Your task to perform on an android device: delete the emails in spam in the gmail app Image 0: 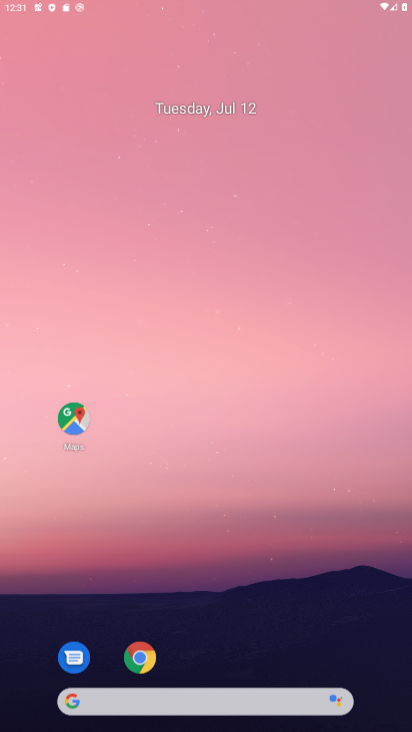
Step 0: click (188, 70)
Your task to perform on an android device: delete the emails in spam in the gmail app Image 1: 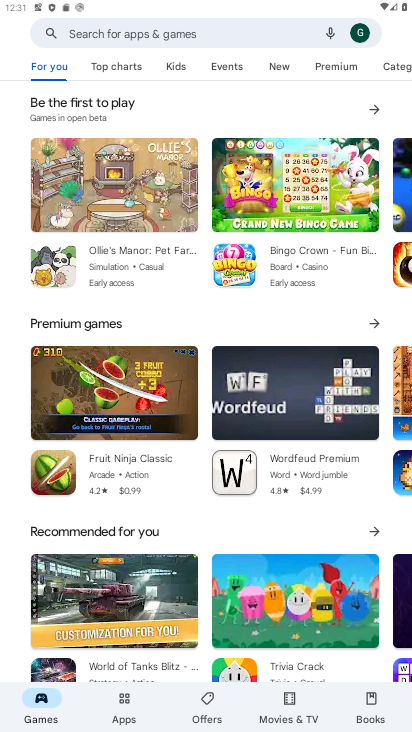
Step 1: press home button
Your task to perform on an android device: delete the emails in spam in the gmail app Image 2: 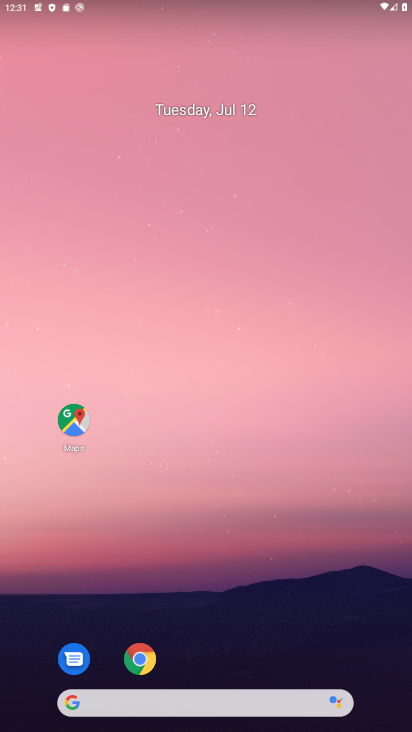
Step 2: drag from (229, 728) to (229, 151)
Your task to perform on an android device: delete the emails in spam in the gmail app Image 3: 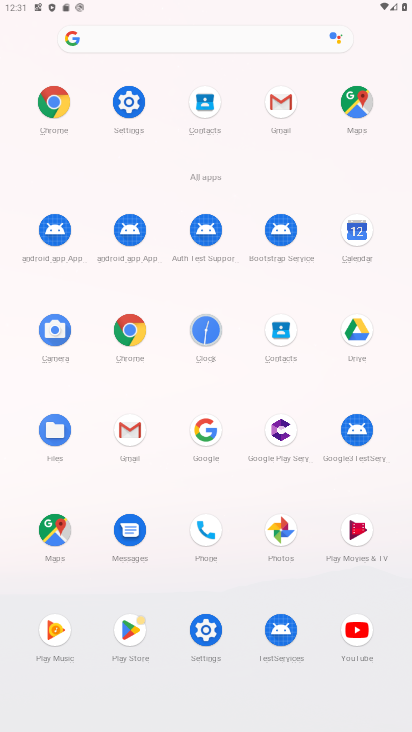
Step 3: click (128, 430)
Your task to perform on an android device: delete the emails in spam in the gmail app Image 4: 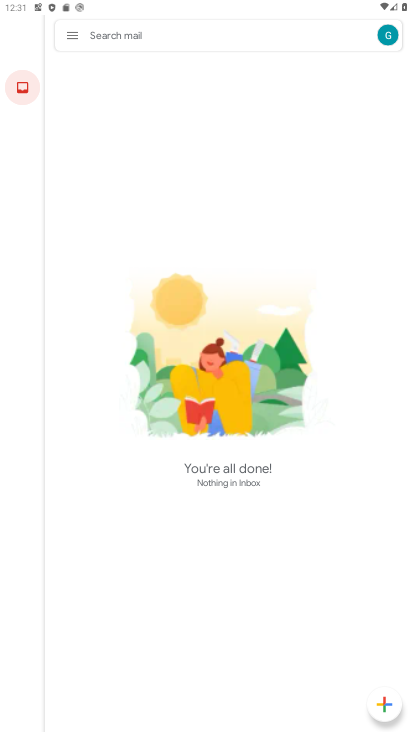
Step 4: click (73, 36)
Your task to perform on an android device: delete the emails in spam in the gmail app Image 5: 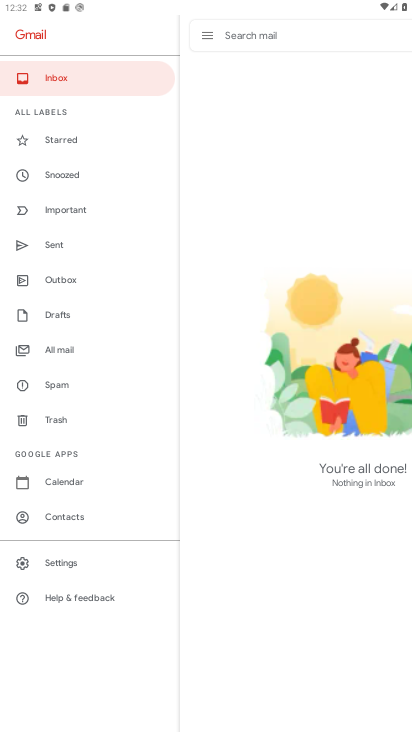
Step 5: click (59, 383)
Your task to perform on an android device: delete the emails in spam in the gmail app Image 6: 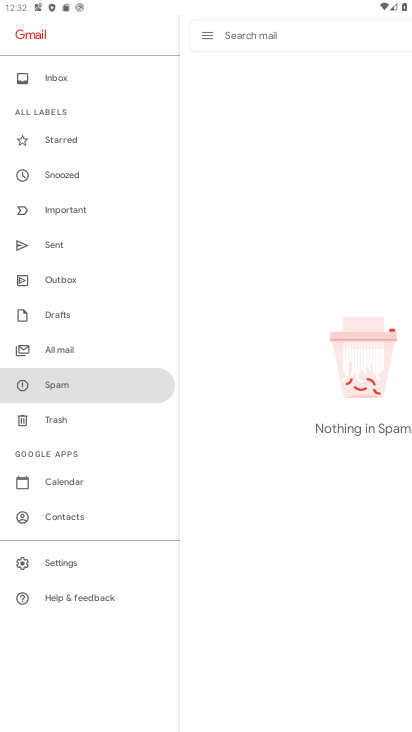
Step 6: task complete